Your task to perform on an android device: Open calendar and show me the first week of next month Image 0: 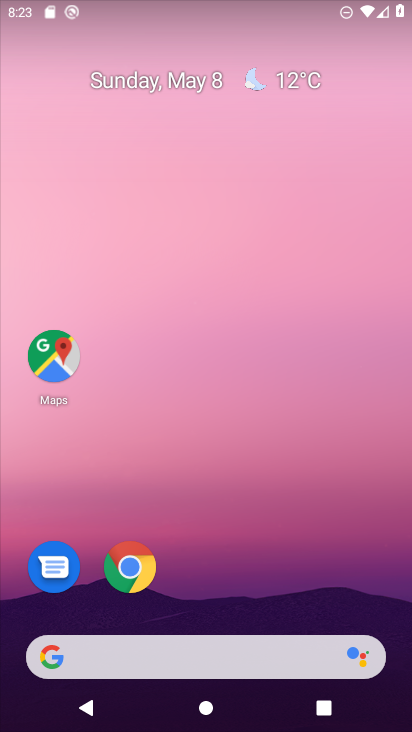
Step 0: drag from (369, 551) to (352, 33)
Your task to perform on an android device: Open calendar and show me the first week of next month Image 1: 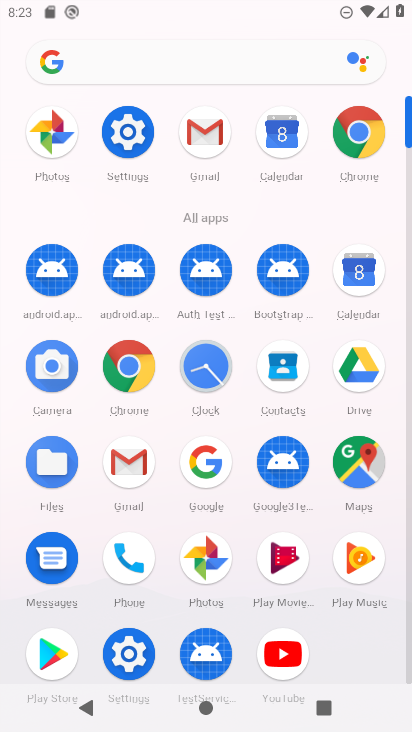
Step 1: click (293, 125)
Your task to perform on an android device: Open calendar and show me the first week of next month Image 2: 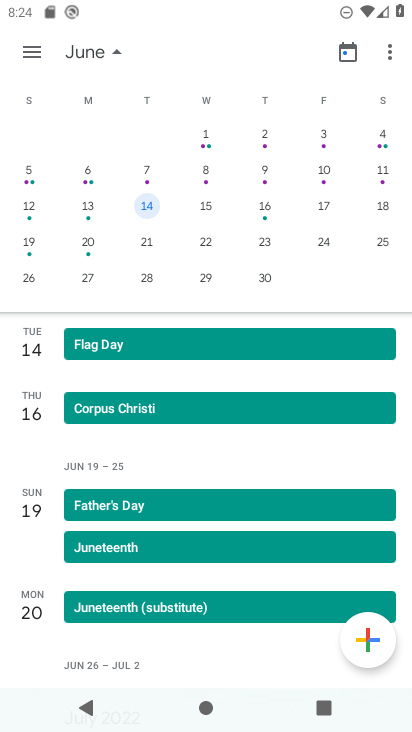
Step 2: drag from (365, 199) to (16, 360)
Your task to perform on an android device: Open calendar and show me the first week of next month Image 3: 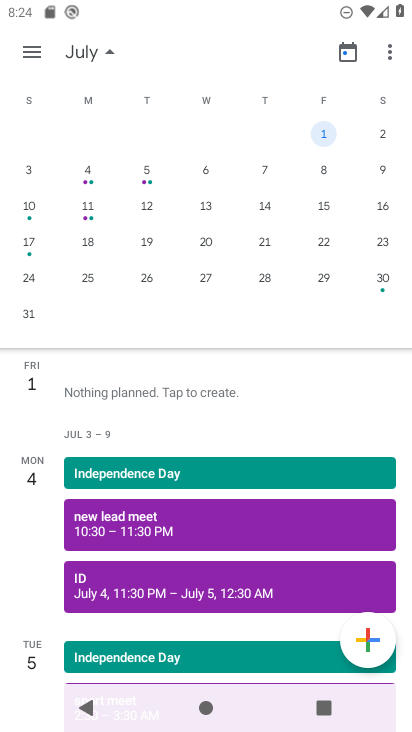
Step 3: click (263, 172)
Your task to perform on an android device: Open calendar and show me the first week of next month Image 4: 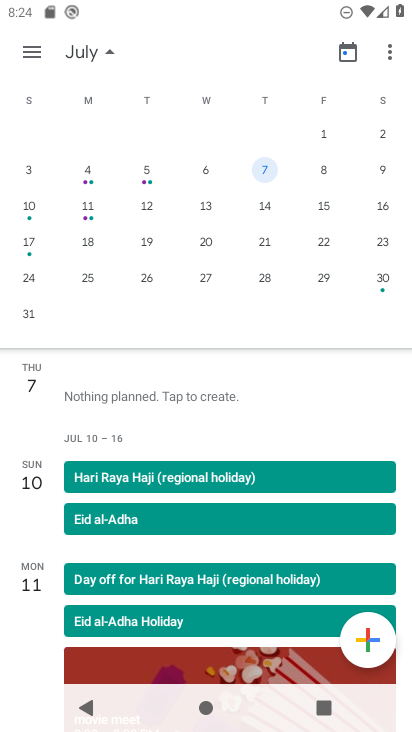
Step 4: task complete